Your task to perform on an android device: empty trash in the gmail app Image 0: 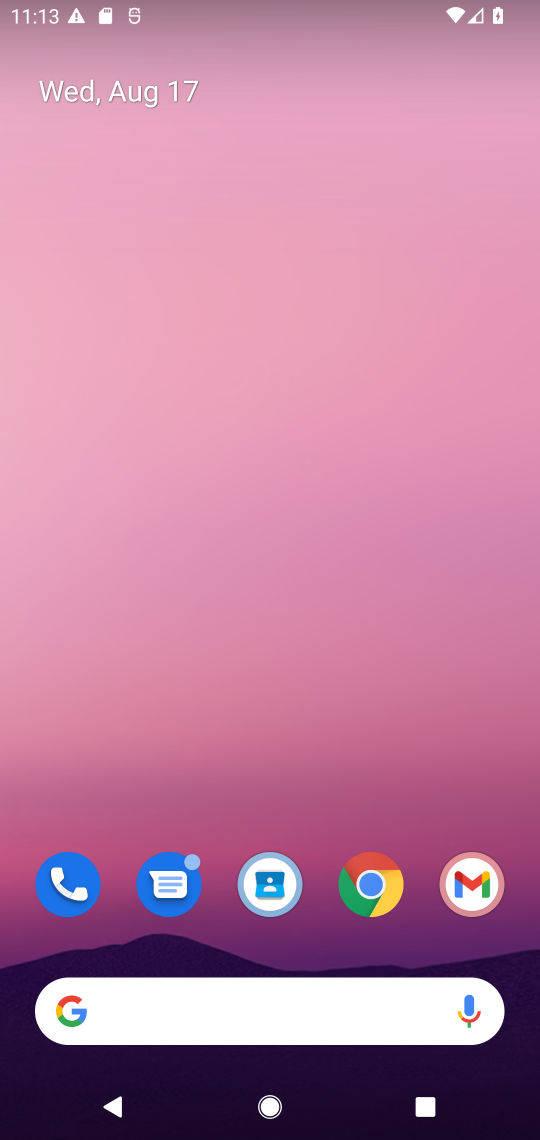
Step 0: press home button
Your task to perform on an android device: empty trash in the gmail app Image 1: 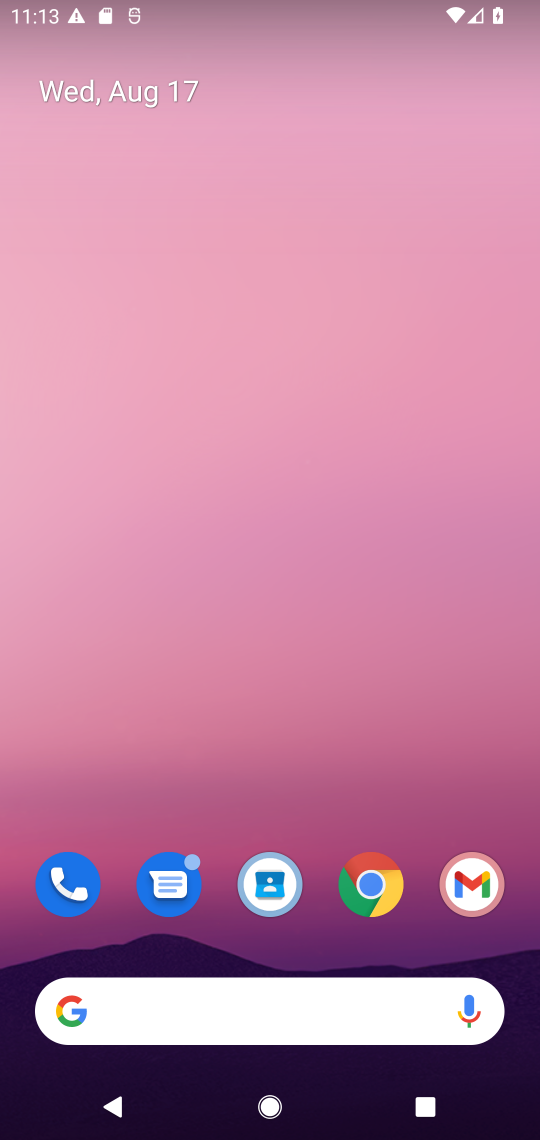
Step 1: click (477, 887)
Your task to perform on an android device: empty trash in the gmail app Image 2: 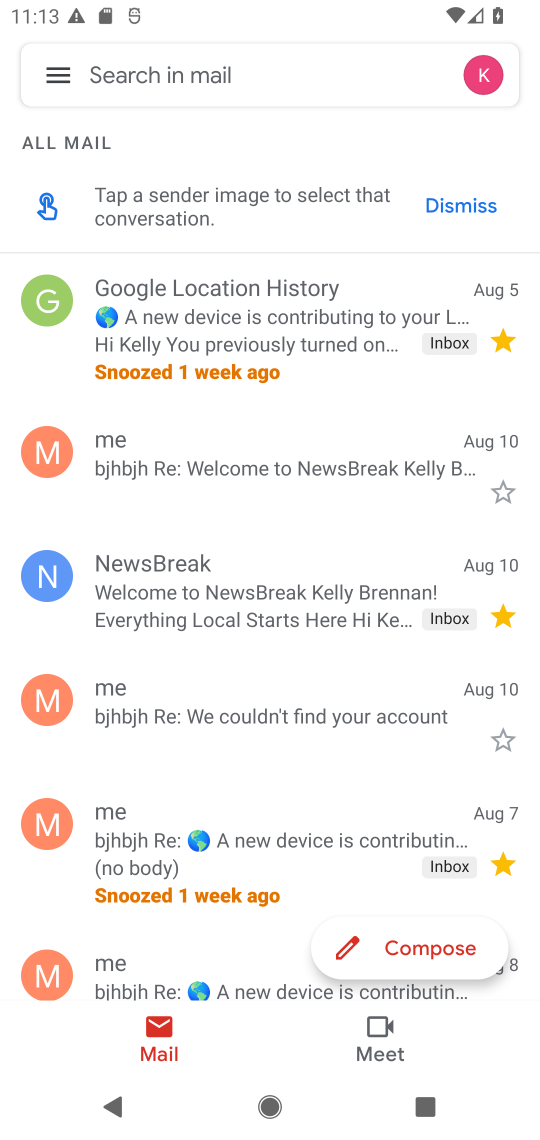
Step 2: click (62, 77)
Your task to perform on an android device: empty trash in the gmail app Image 3: 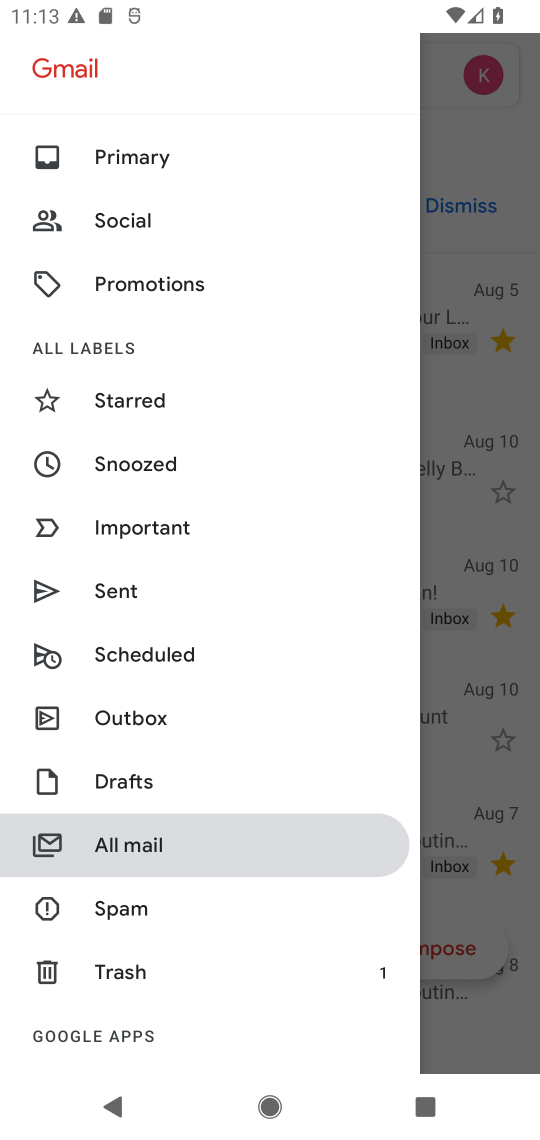
Step 3: click (113, 980)
Your task to perform on an android device: empty trash in the gmail app Image 4: 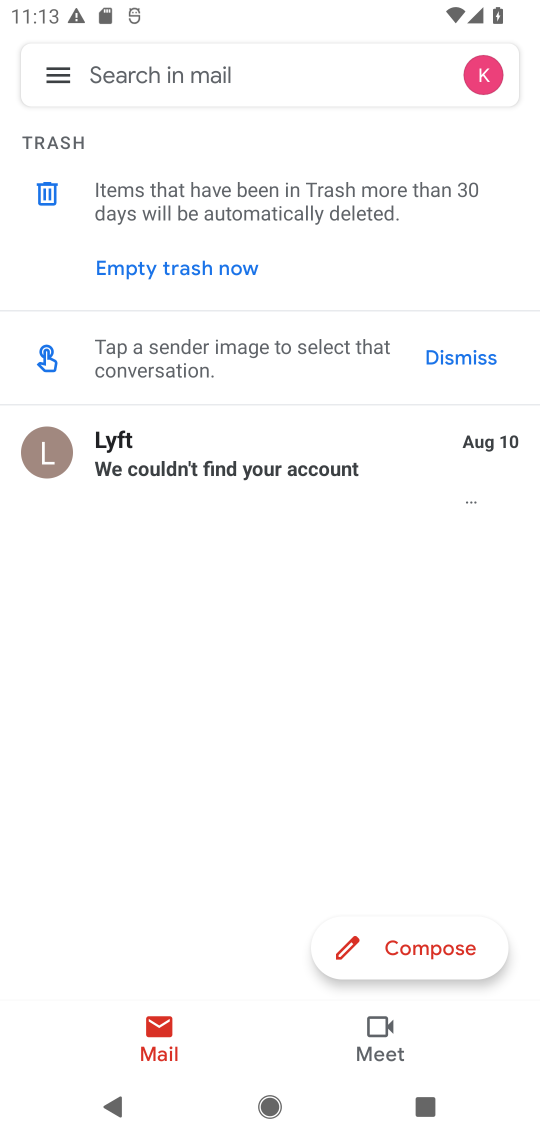
Step 4: click (177, 258)
Your task to perform on an android device: empty trash in the gmail app Image 5: 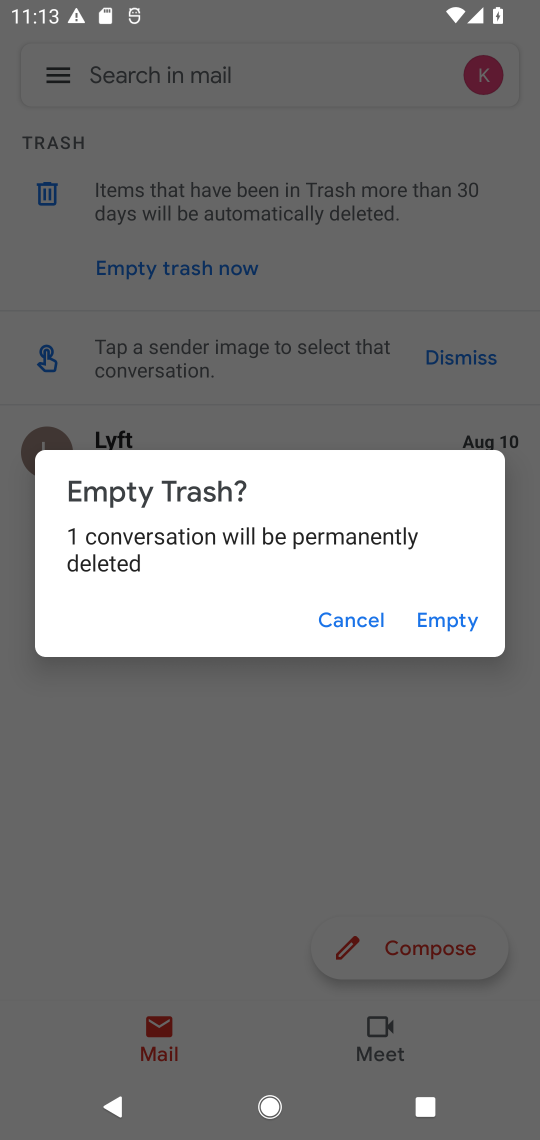
Step 5: click (448, 620)
Your task to perform on an android device: empty trash in the gmail app Image 6: 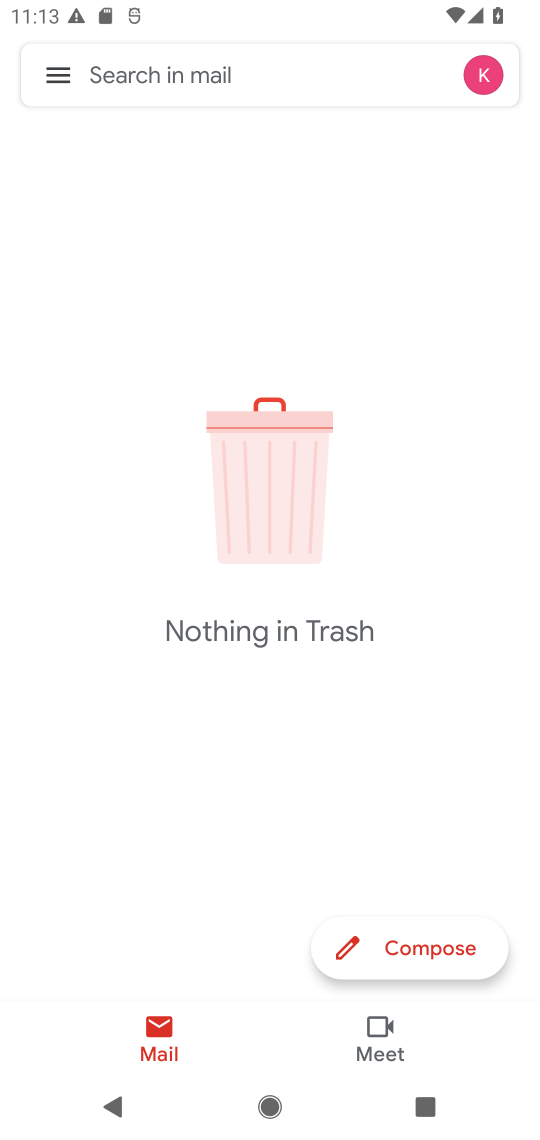
Step 6: task complete